Your task to perform on an android device: Search for Mexican restaurants on Maps Image 0: 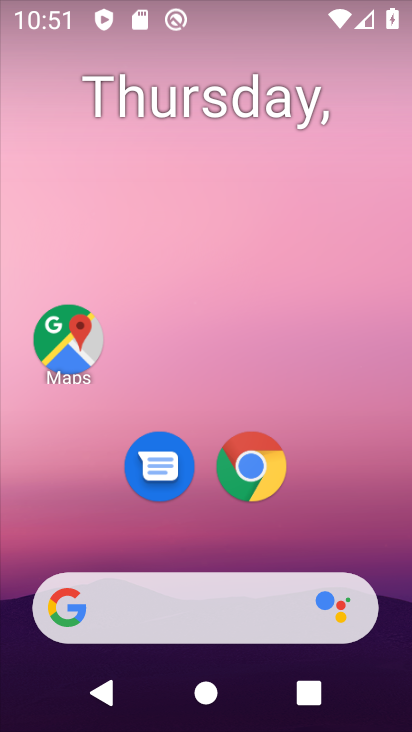
Step 0: drag from (196, 537) to (267, 5)
Your task to perform on an android device: Search for Mexican restaurants on Maps Image 1: 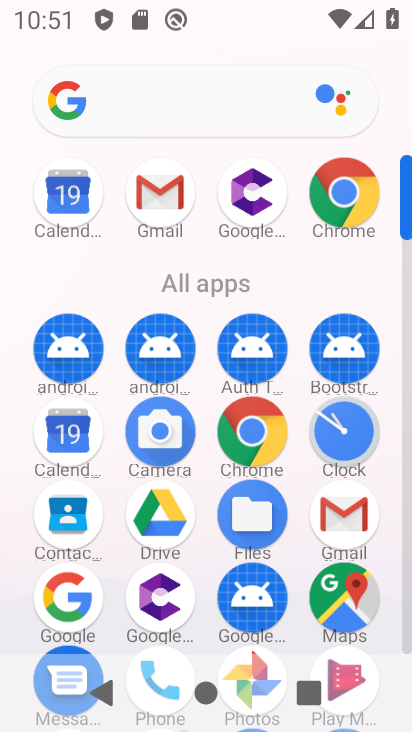
Step 1: click (360, 589)
Your task to perform on an android device: Search for Mexican restaurants on Maps Image 2: 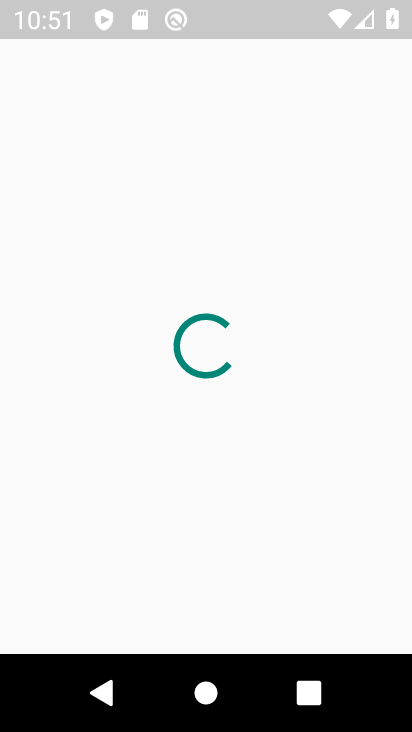
Step 2: click (229, 76)
Your task to perform on an android device: Search for Mexican restaurants on Maps Image 3: 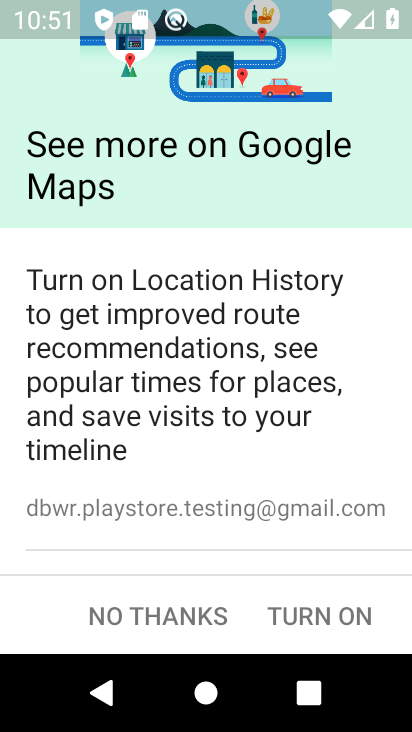
Step 3: click (331, 599)
Your task to perform on an android device: Search for Mexican restaurants on Maps Image 4: 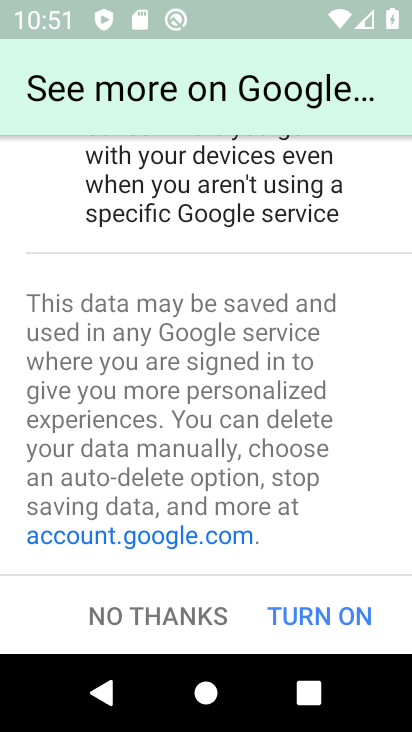
Step 4: click (340, 620)
Your task to perform on an android device: Search for Mexican restaurants on Maps Image 5: 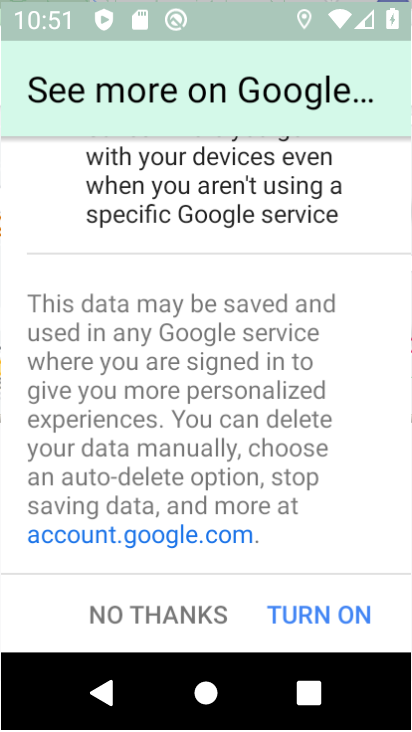
Step 5: click (339, 617)
Your task to perform on an android device: Search for Mexican restaurants on Maps Image 6: 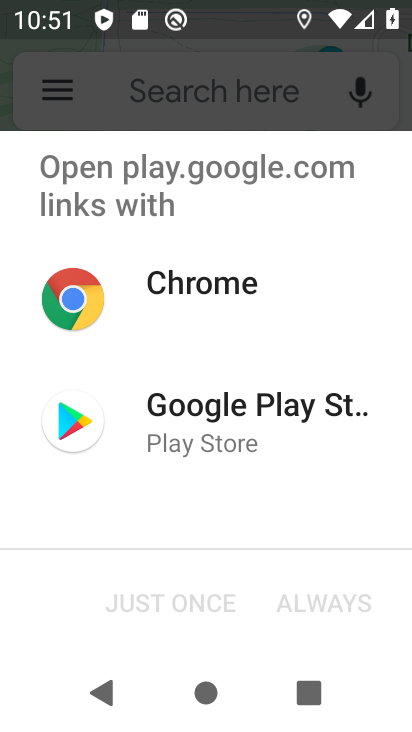
Step 6: click (226, 114)
Your task to perform on an android device: Search for Mexican restaurants on Maps Image 7: 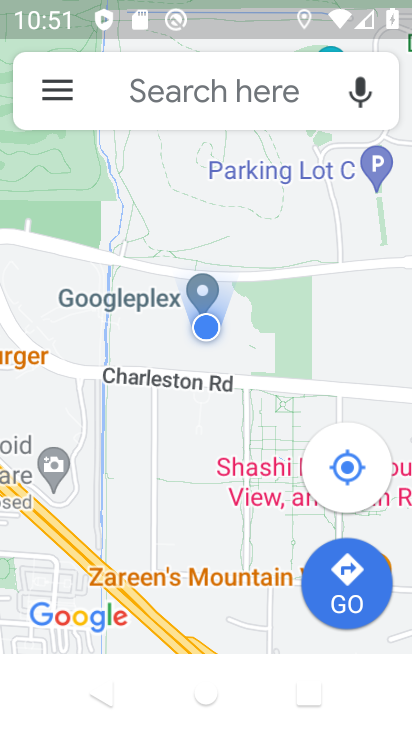
Step 7: click (226, 114)
Your task to perform on an android device: Search for Mexican restaurants on Maps Image 8: 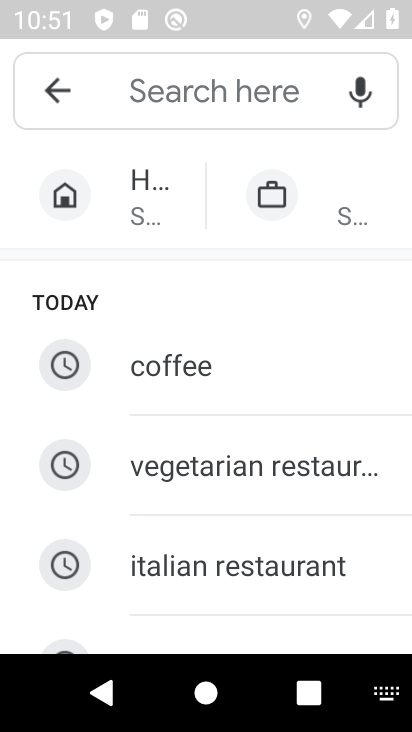
Step 8: drag from (168, 574) to (85, 246)
Your task to perform on an android device: Search for Mexican restaurants on Maps Image 9: 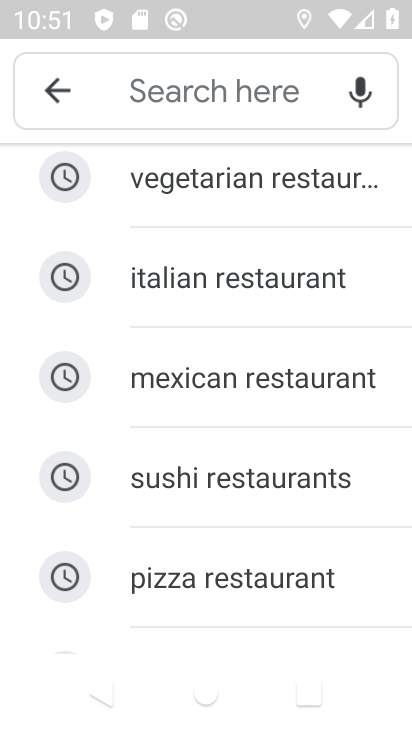
Step 9: click (145, 380)
Your task to perform on an android device: Search for Mexican restaurants on Maps Image 10: 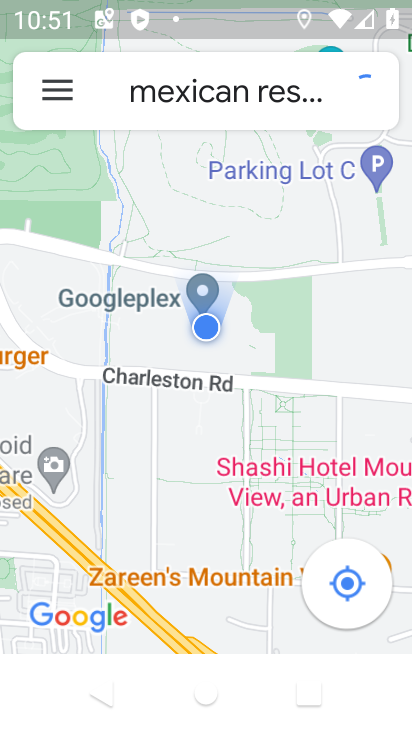
Step 10: task complete